Your task to perform on an android device: stop showing notifications on the lock screen Image 0: 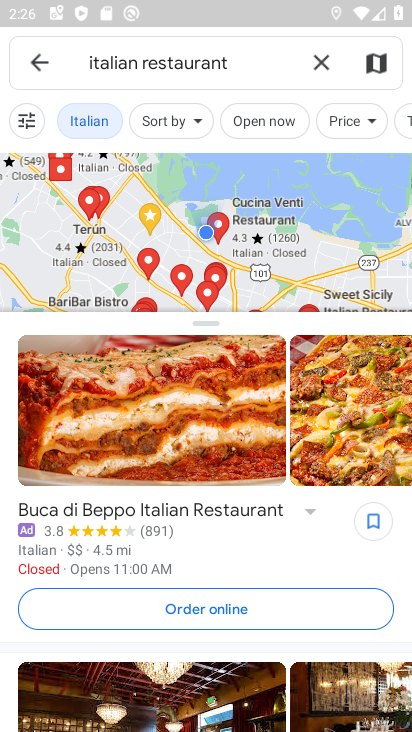
Step 0: press home button
Your task to perform on an android device: stop showing notifications on the lock screen Image 1: 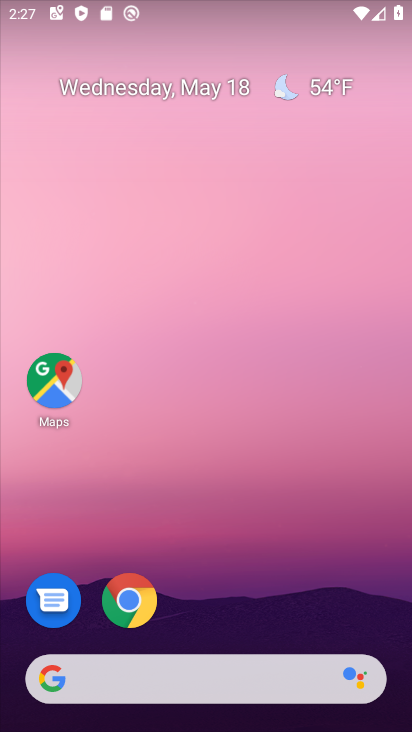
Step 1: drag from (185, 639) to (205, 97)
Your task to perform on an android device: stop showing notifications on the lock screen Image 2: 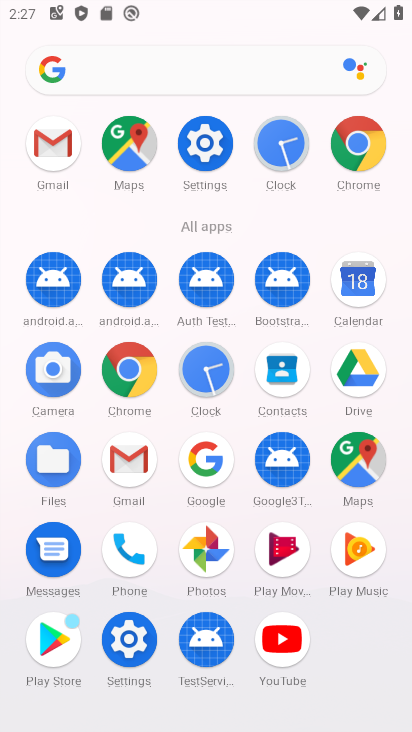
Step 2: click (212, 155)
Your task to perform on an android device: stop showing notifications on the lock screen Image 3: 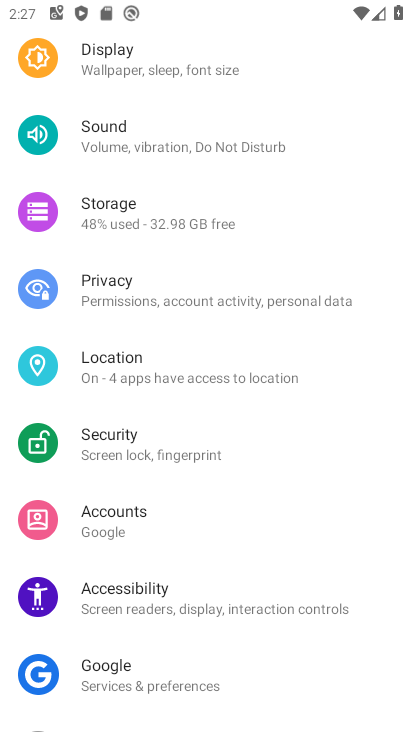
Step 3: drag from (247, 118) to (210, 593)
Your task to perform on an android device: stop showing notifications on the lock screen Image 4: 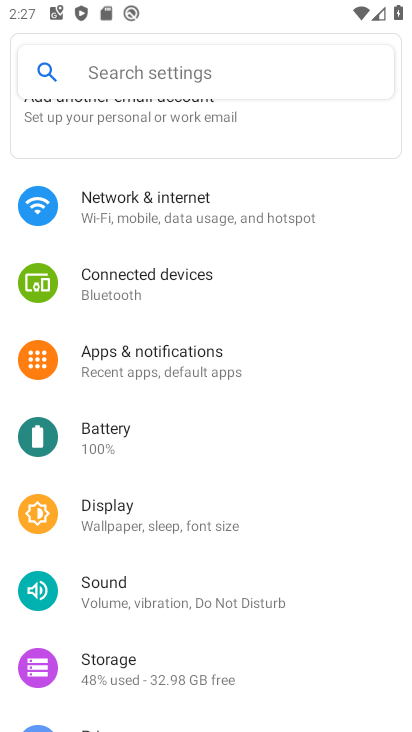
Step 4: click (125, 375)
Your task to perform on an android device: stop showing notifications on the lock screen Image 5: 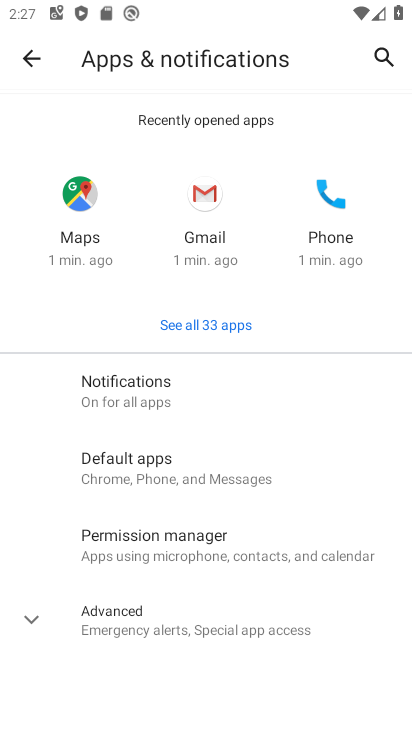
Step 5: click (161, 378)
Your task to perform on an android device: stop showing notifications on the lock screen Image 6: 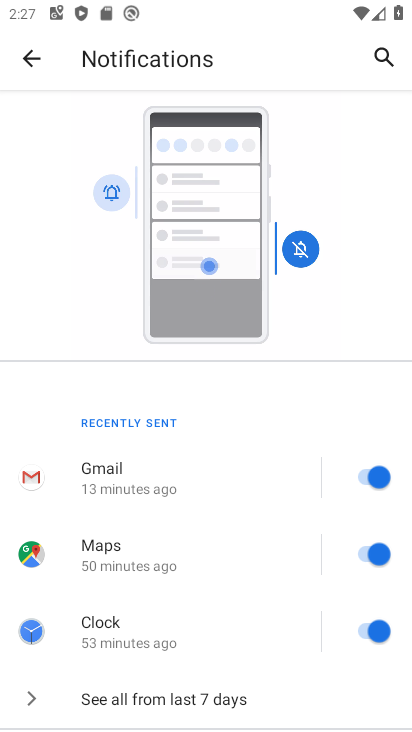
Step 6: drag from (216, 568) to (236, 216)
Your task to perform on an android device: stop showing notifications on the lock screen Image 7: 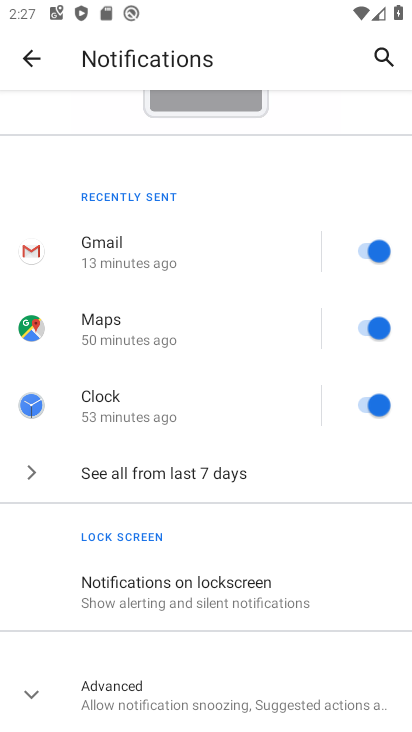
Step 7: click (149, 600)
Your task to perform on an android device: stop showing notifications on the lock screen Image 8: 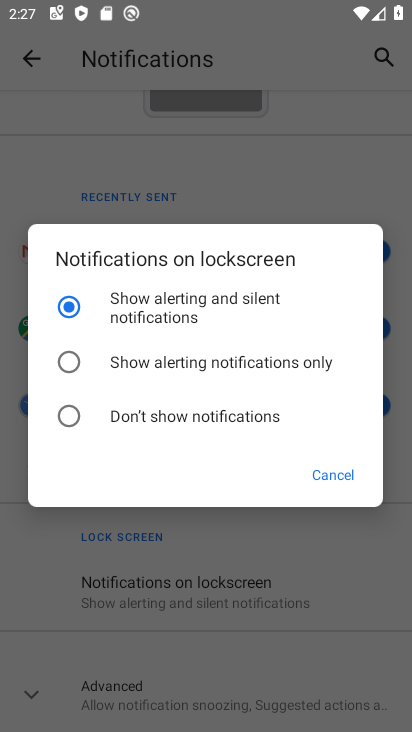
Step 8: click (72, 418)
Your task to perform on an android device: stop showing notifications on the lock screen Image 9: 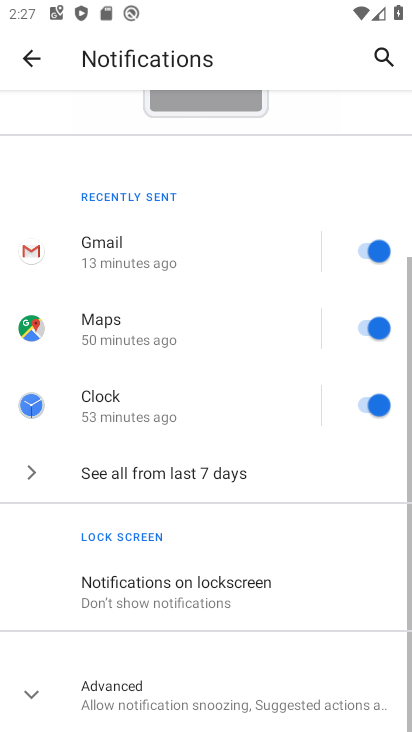
Step 9: task complete